Your task to perform on an android device: read, delete, or share a saved page in the chrome app Image 0: 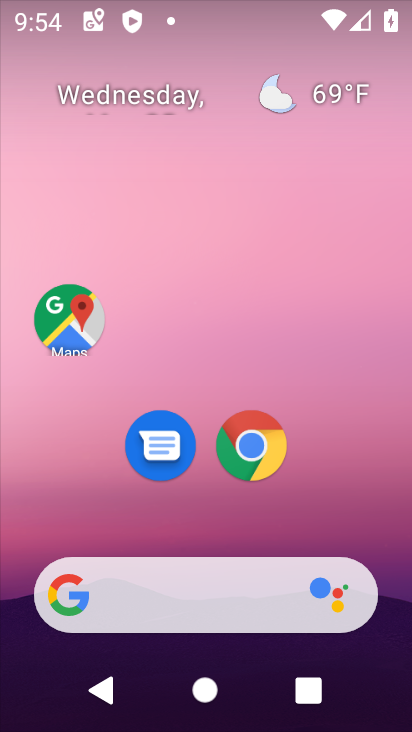
Step 0: press home button
Your task to perform on an android device: read, delete, or share a saved page in the chrome app Image 1: 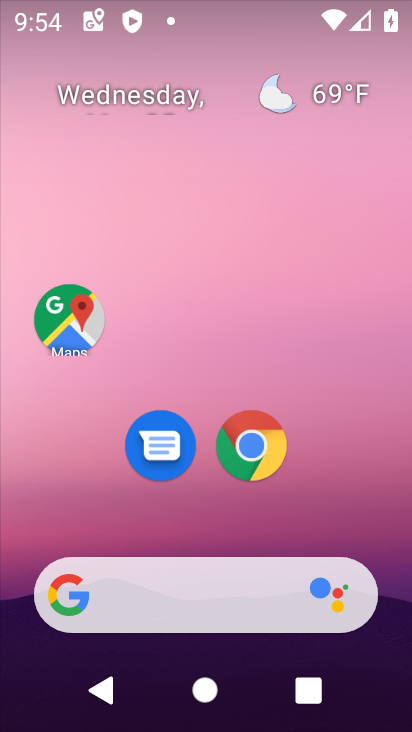
Step 1: drag from (375, 725) to (337, 189)
Your task to perform on an android device: read, delete, or share a saved page in the chrome app Image 2: 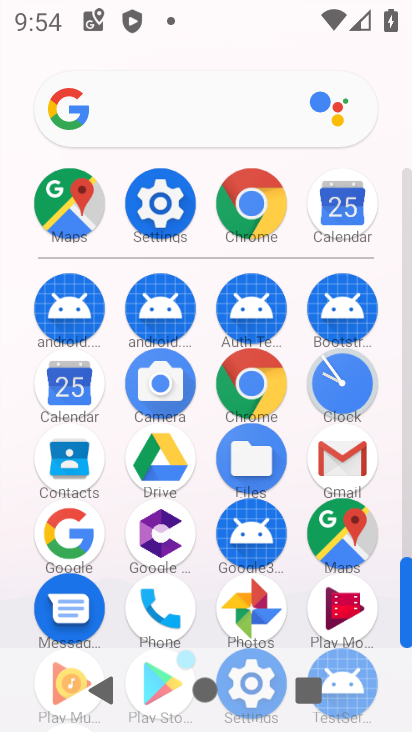
Step 2: click (247, 207)
Your task to perform on an android device: read, delete, or share a saved page in the chrome app Image 3: 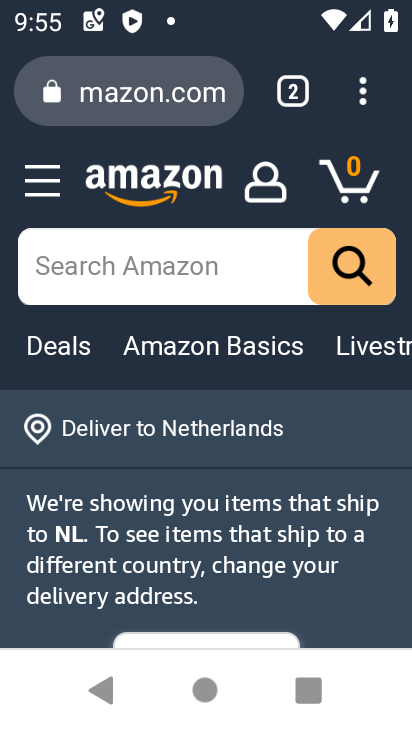
Step 3: drag from (365, 86) to (165, 701)
Your task to perform on an android device: read, delete, or share a saved page in the chrome app Image 4: 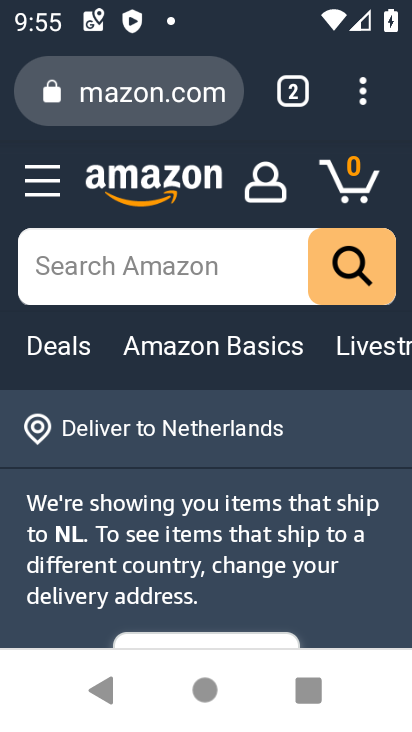
Step 4: drag from (361, 80) to (71, 463)
Your task to perform on an android device: read, delete, or share a saved page in the chrome app Image 5: 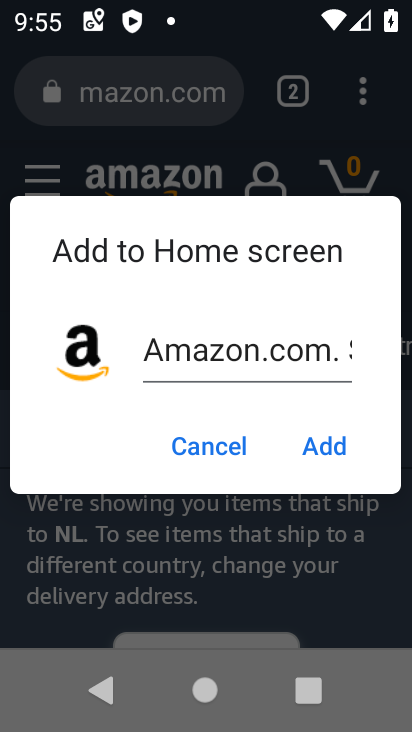
Step 5: click (60, 400)
Your task to perform on an android device: read, delete, or share a saved page in the chrome app Image 6: 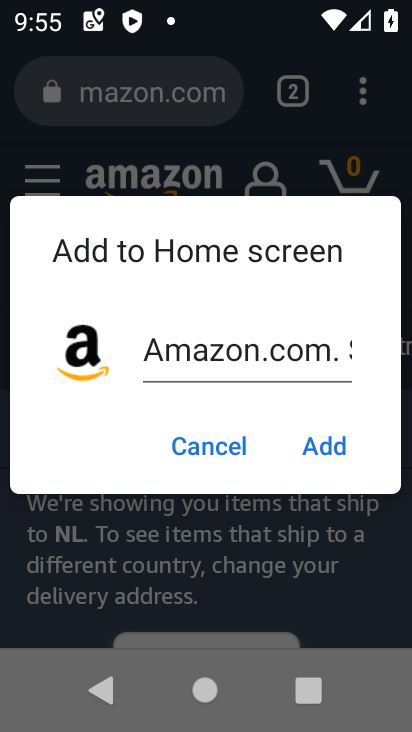
Step 6: click (224, 448)
Your task to perform on an android device: read, delete, or share a saved page in the chrome app Image 7: 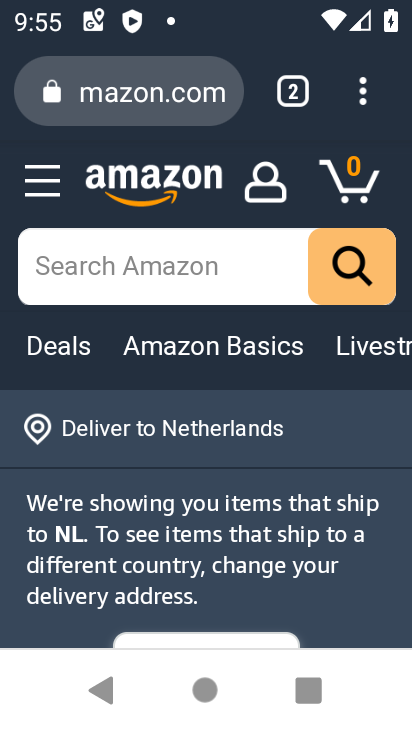
Step 7: click (361, 88)
Your task to perform on an android device: read, delete, or share a saved page in the chrome app Image 8: 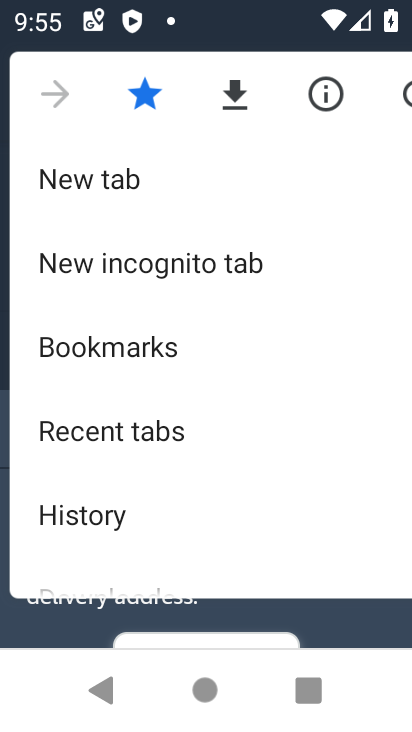
Step 8: drag from (185, 489) to (179, 263)
Your task to perform on an android device: read, delete, or share a saved page in the chrome app Image 9: 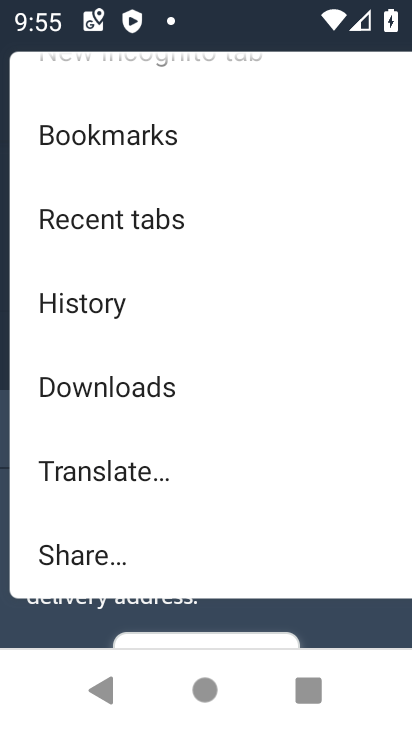
Step 9: click (150, 390)
Your task to perform on an android device: read, delete, or share a saved page in the chrome app Image 10: 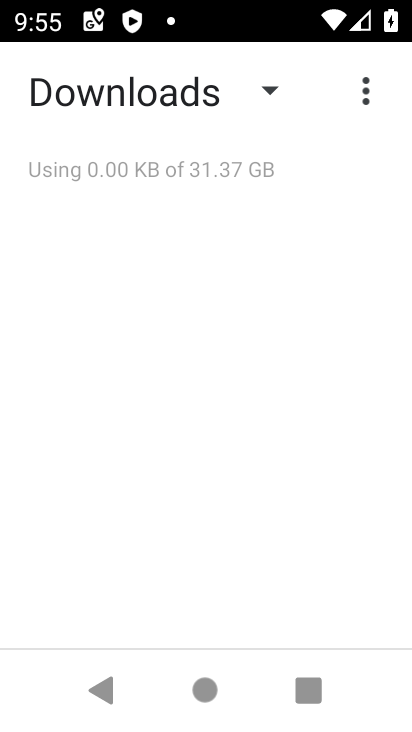
Step 10: task complete